Your task to perform on an android device: Open maps Image 0: 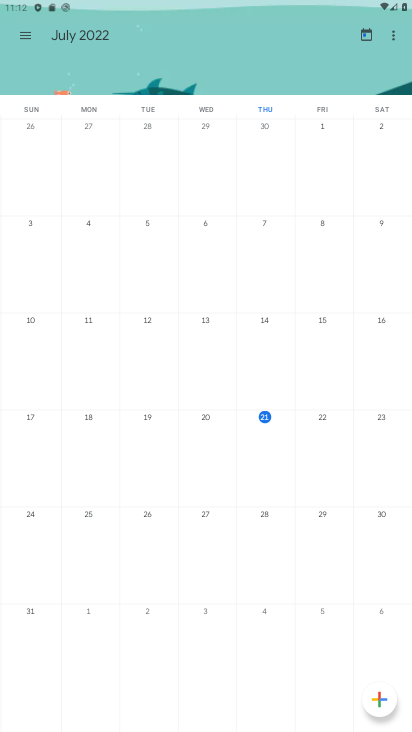
Step 0: press home button
Your task to perform on an android device: Open maps Image 1: 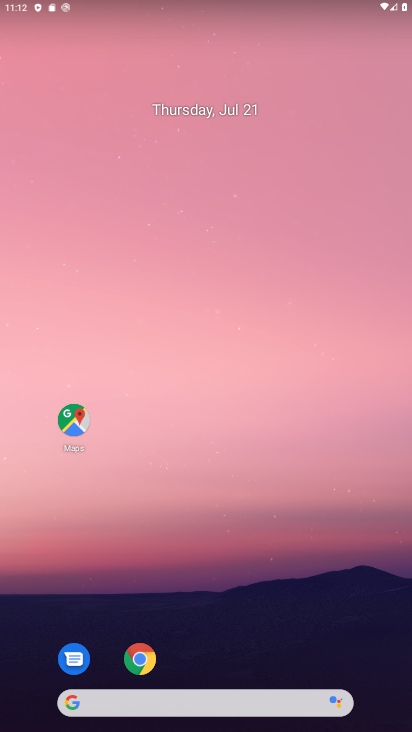
Step 1: click (70, 420)
Your task to perform on an android device: Open maps Image 2: 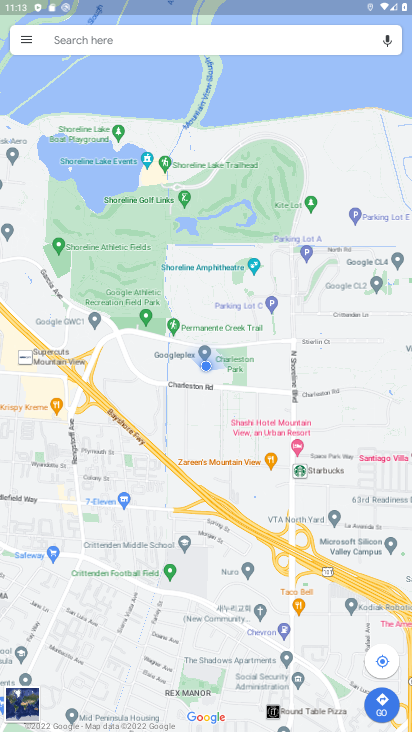
Step 2: task complete